Your task to perform on an android device: Open Google Image 0: 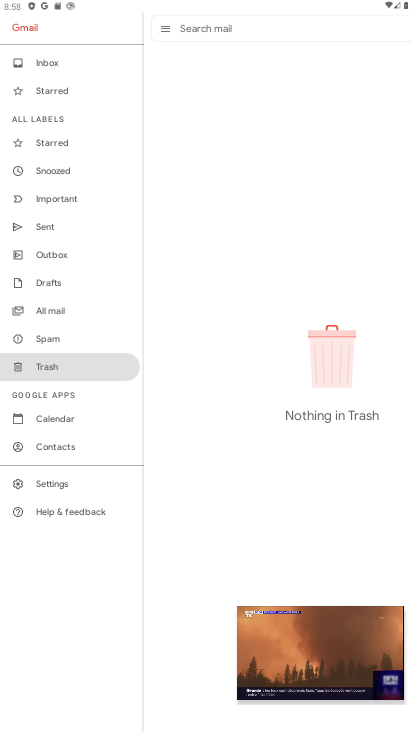
Step 0: click (391, 613)
Your task to perform on an android device: Open Google Image 1: 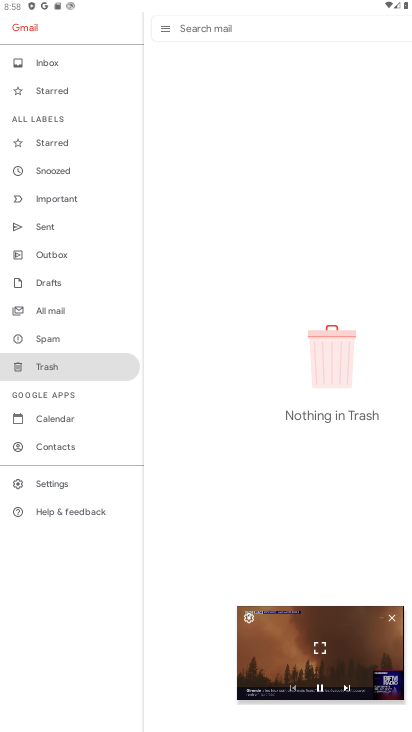
Step 1: click (391, 613)
Your task to perform on an android device: Open Google Image 2: 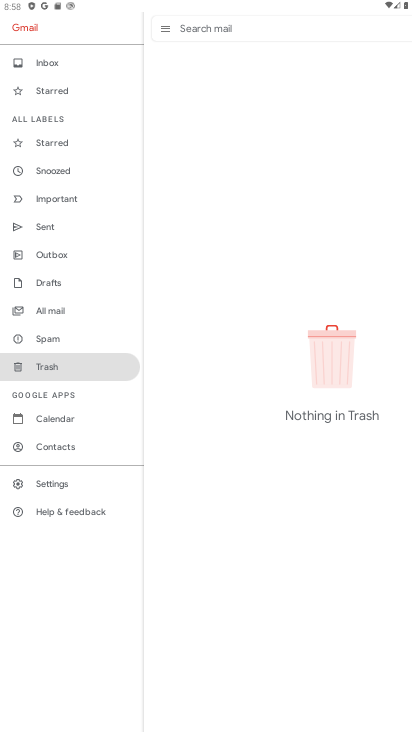
Step 2: press back button
Your task to perform on an android device: Open Google Image 3: 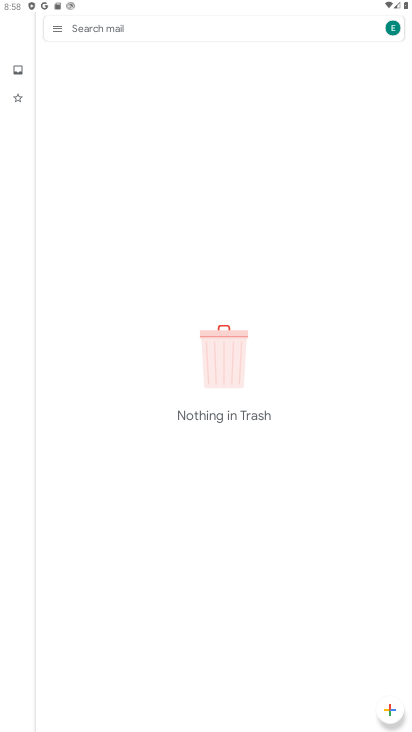
Step 3: click (51, 26)
Your task to perform on an android device: Open Google Image 4: 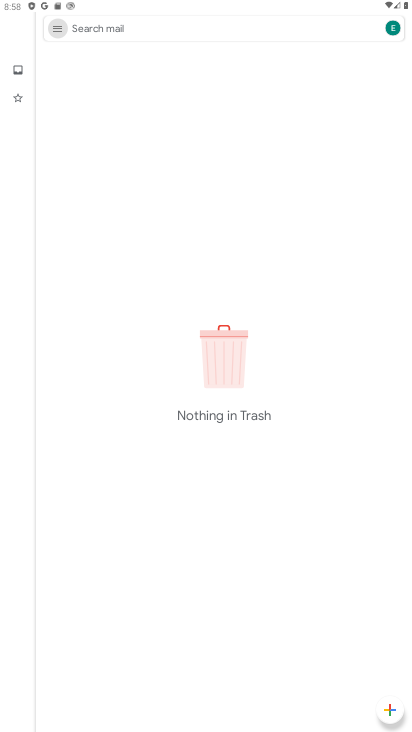
Step 4: click (52, 28)
Your task to perform on an android device: Open Google Image 5: 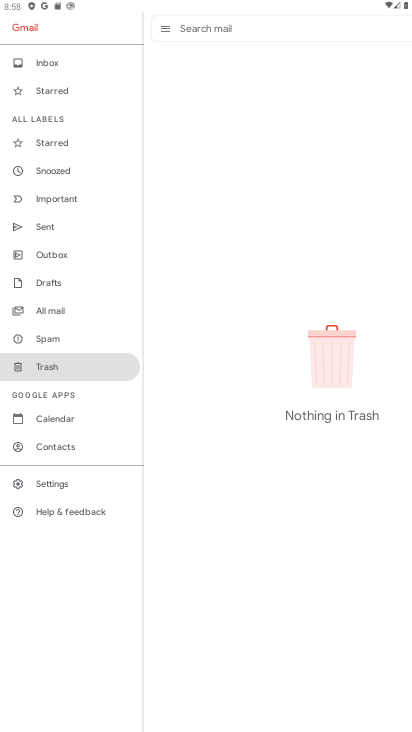
Step 5: press back button
Your task to perform on an android device: Open Google Image 6: 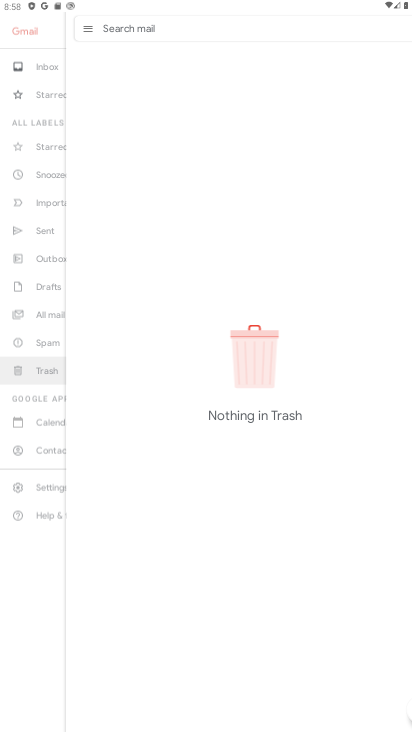
Step 6: press back button
Your task to perform on an android device: Open Google Image 7: 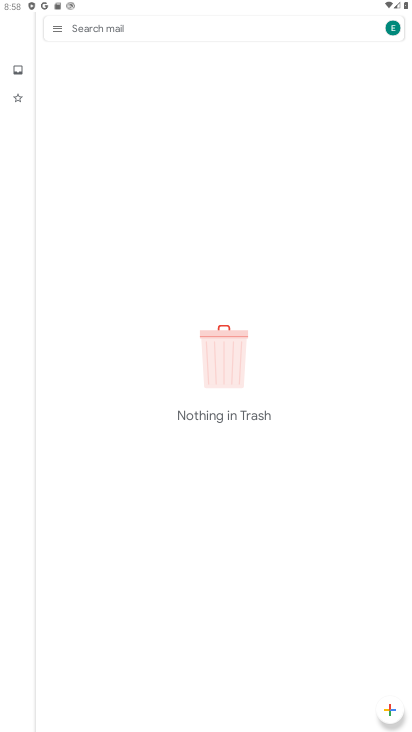
Step 7: press back button
Your task to perform on an android device: Open Google Image 8: 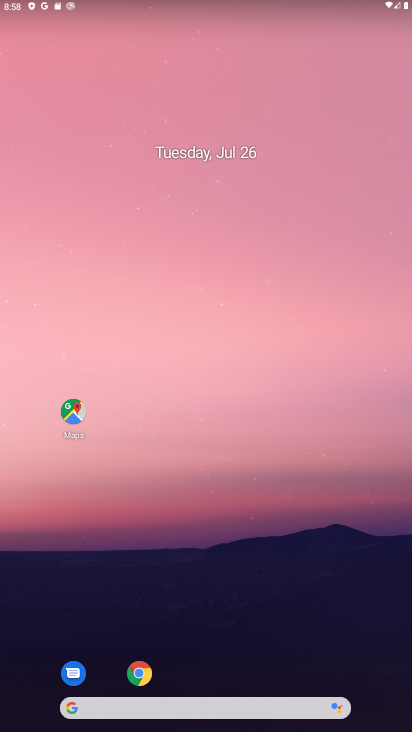
Step 8: drag from (230, 485) to (219, 112)
Your task to perform on an android device: Open Google Image 9: 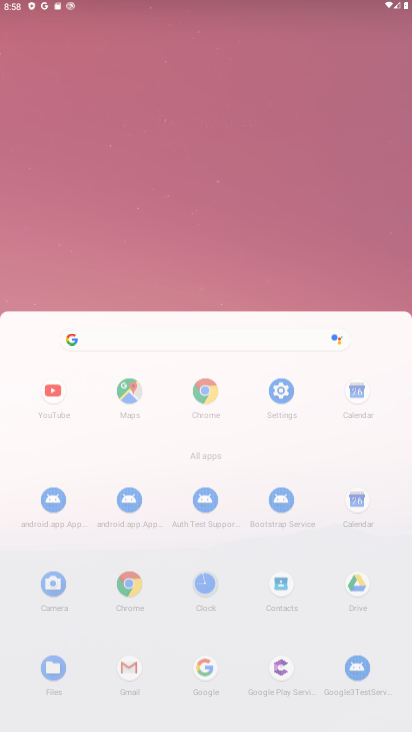
Step 9: drag from (335, 493) to (334, 218)
Your task to perform on an android device: Open Google Image 10: 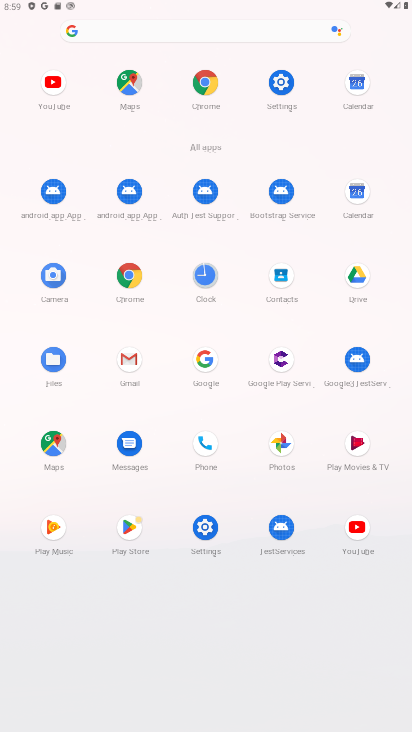
Step 10: click (211, 360)
Your task to perform on an android device: Open Google Image 11: 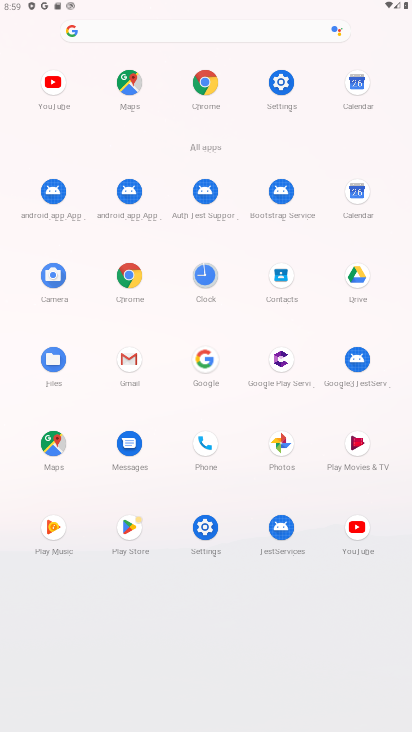
Step 11: click (211, 360)
Your task to perform on an android device: Open Google Image 12: 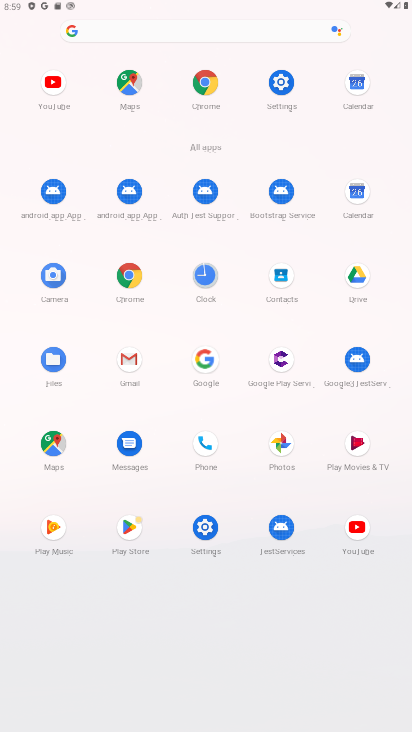
Step 12: click (212, 359)
Your task to perform on an android device: Open Google Image 13: 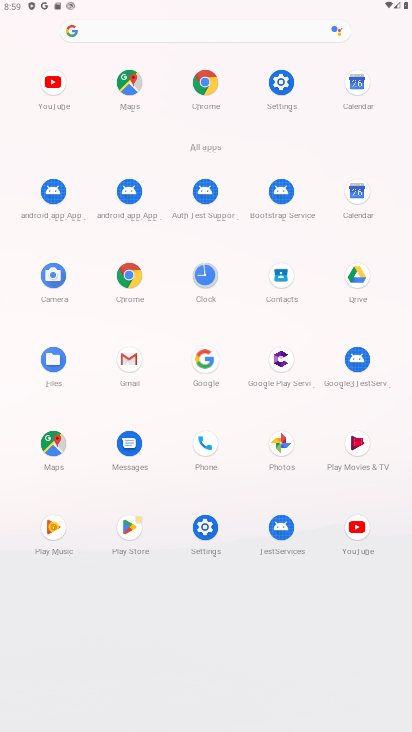
Step 13: click (213, 360)
Your task to perform on an android device: Open Google Image 14: 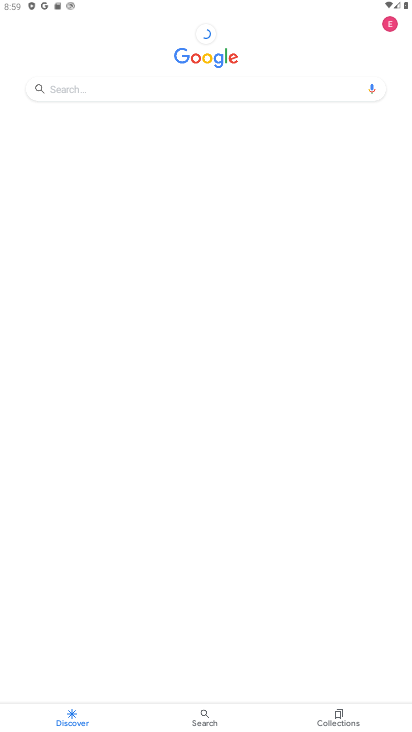
Step 14: task complete